Your task to perform on an android device: Do I have any events today? Image 0: 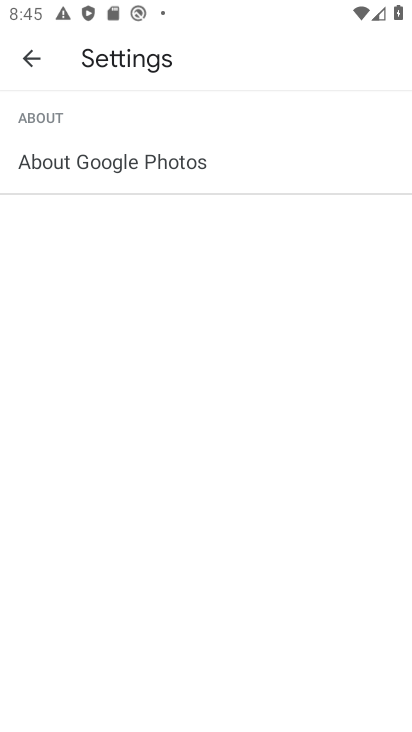
Step 0: press home button
Your task to perform on an android device: Do I have any events today? Image 1: 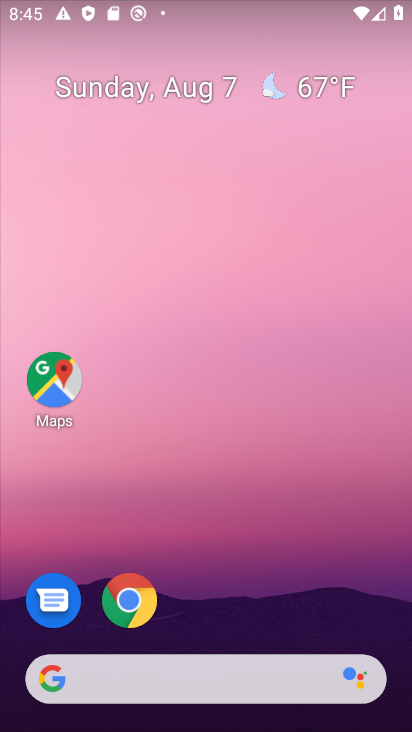
Step 1: drag from (215, 626) to (210, 33)
Your task to perform on an android device: Do I have any events today? Image 2: 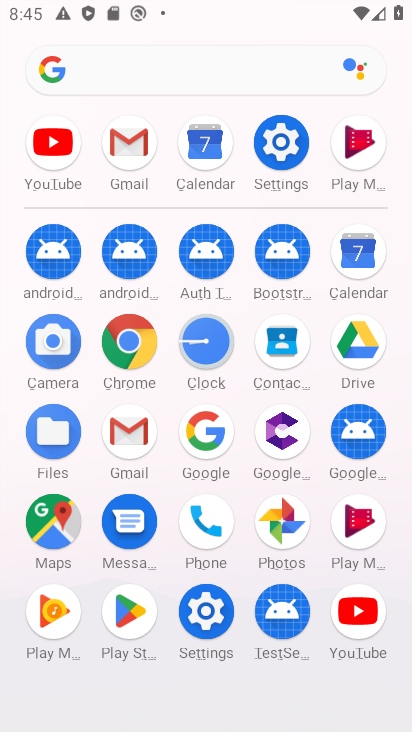
Step 2: click (363, 293)
Your task to perform on an android device: Do I have any events today? Image 3: 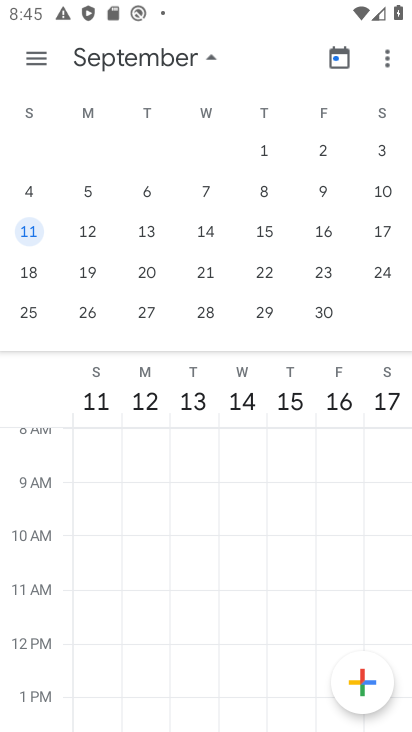
Step 3: click (98, 55)
Your task to perform on an android device: Do I have any events today? Image 4: 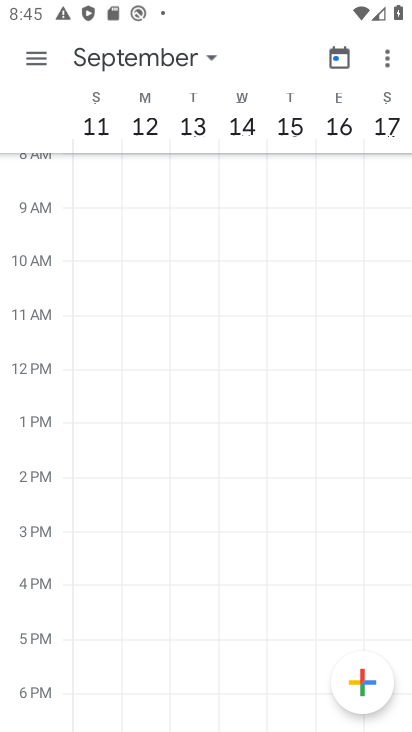
Step 4: click (145, 52)
Your task to perform on an android device: Do I have any events today? Image 5: 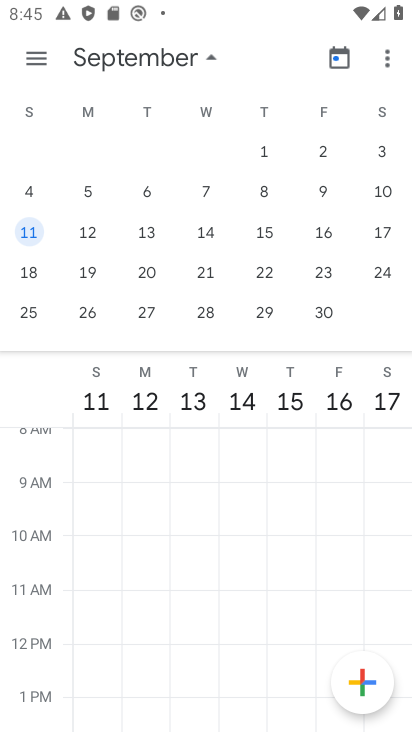
Step 5: drag from (236, 244) to (387, 210)
Your task to perform on an android device: Do I have any events today? Image 6: 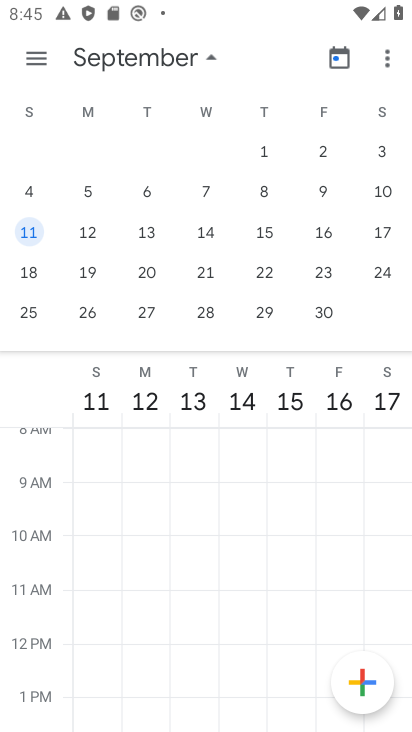
Step 6: drag from (303, 220) to (382, 271)
Your task to perform on an android device: Do I have any events today? Image 7: 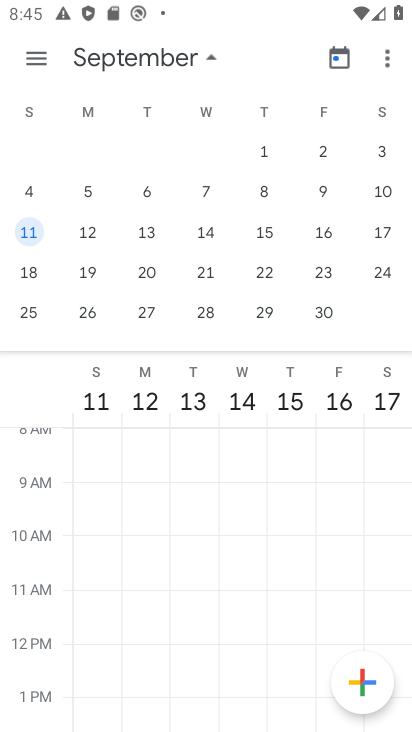
Step 7: drag from (283, 221) to (325, 236)
Your task to perform on an android device: Do I have any events today? Image 8: 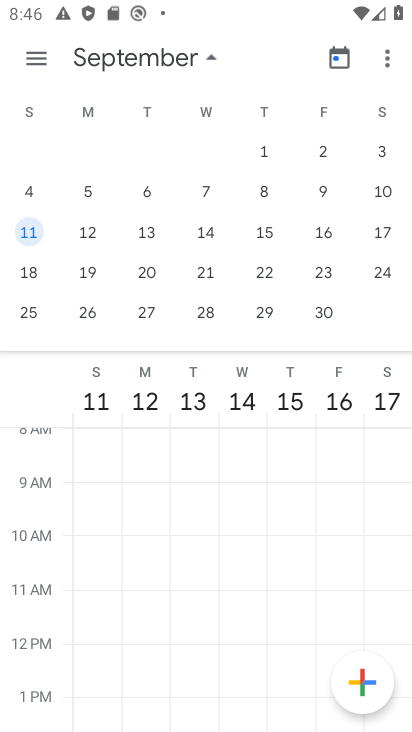
Step 8: drag from (179, 224) to (374, 268)
Your task to perform on an android device: Do I have any events today? Image 9: 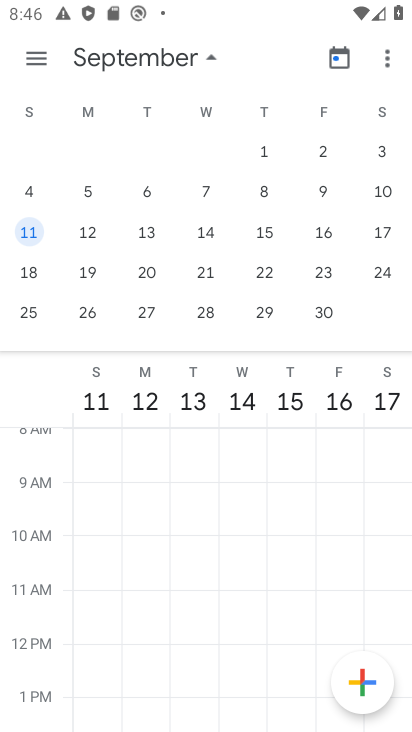
Step 9: drag from (274, 238) to (409, 233)
Your task to perform on an android device: Do I have any events today? Image 10: 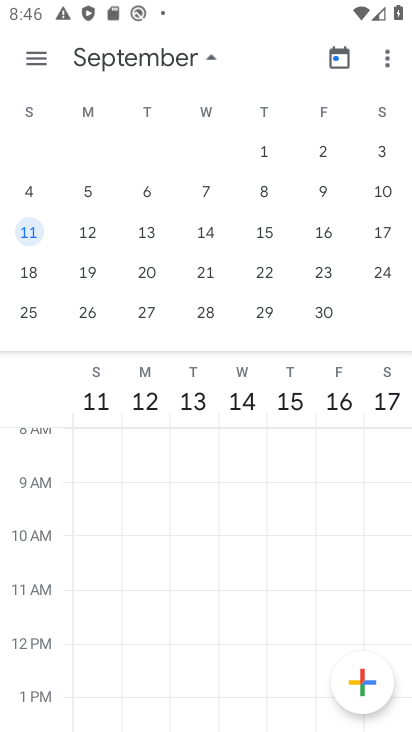
Step 10: drag from (362, 276) to (363, 314)
Your task to perform on an android device: Do I have any events today? Image 11: 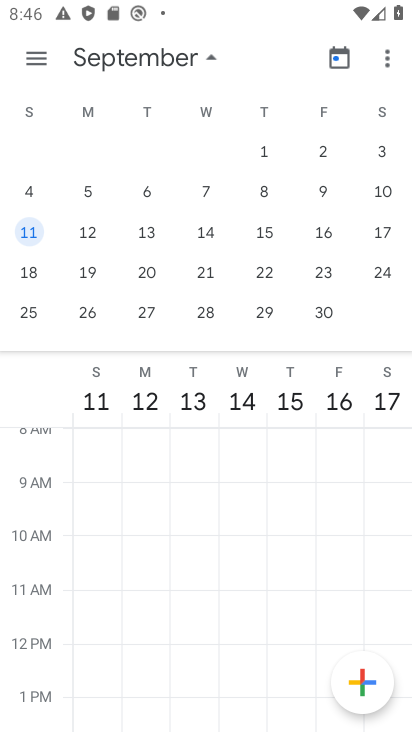
Step 11: drag from (69, 220) to (380, 203)
Your task to perform on an android device: Do I have any events today? Image 12: 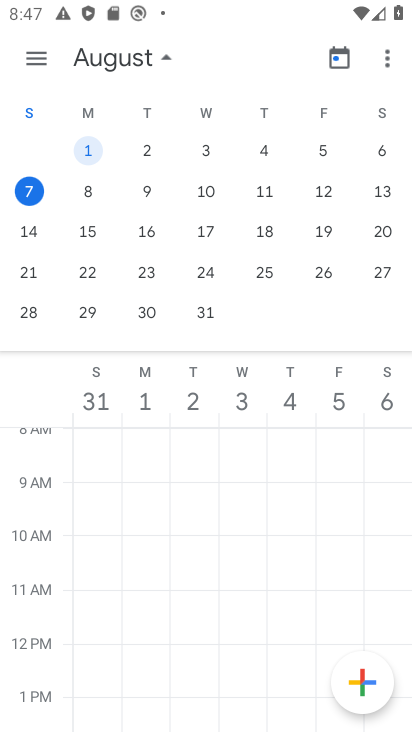
Step 12: click (30, 195)
Your task to perform on an android device: Do I have any events today? Image 13: 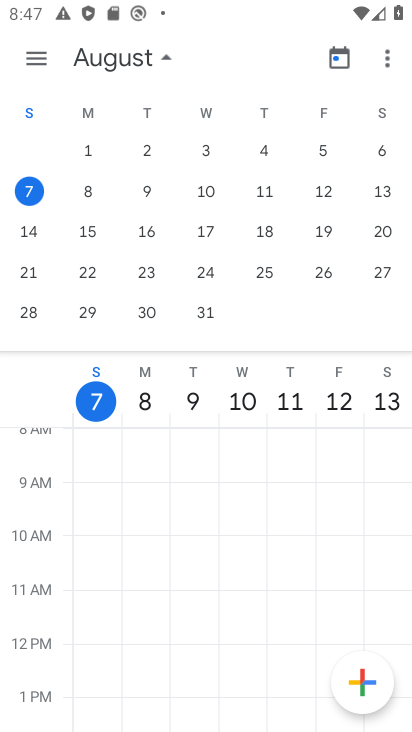
Step 13: task complete